Your task to perform on an android device: Open settings Image 0: 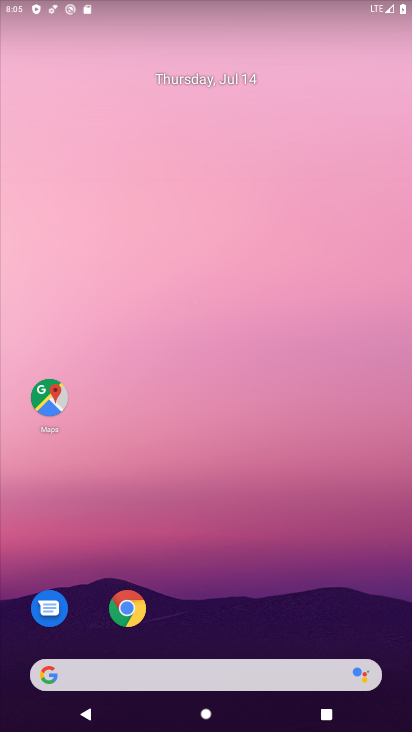
Step 0: drag from (245, 550) to (169, 123)
Your task to perform on an android device: Open settings Image 1: 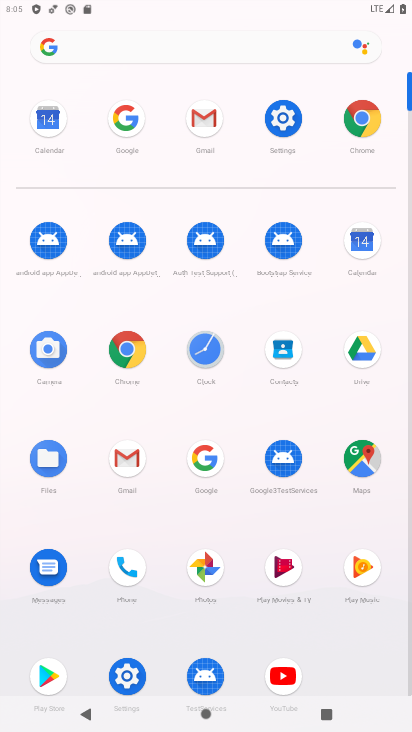
Step 1: click (285, 122)
Your task to perform on an android device: Open settings Image 2: 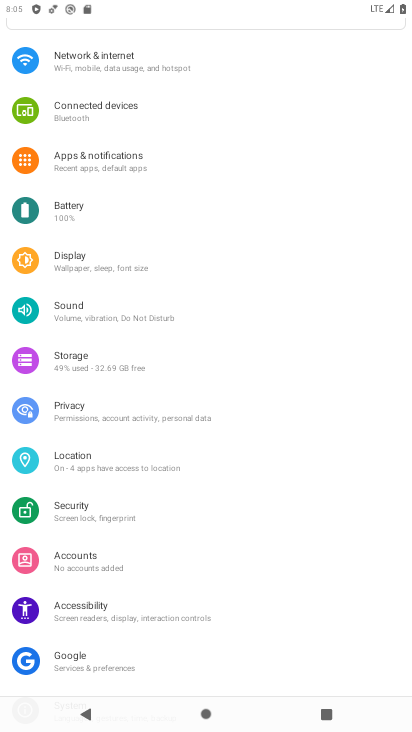
Step 2: task complete